Your task to perform on an android device: turn off airplane mode Image 0: 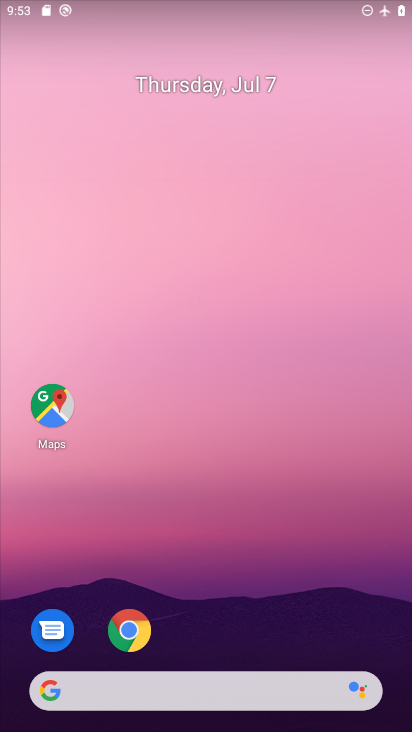
Step 0: drag from (187, 636) to (230, 174)
Your task to perform on an android device: turn off airplane mode Image 1: 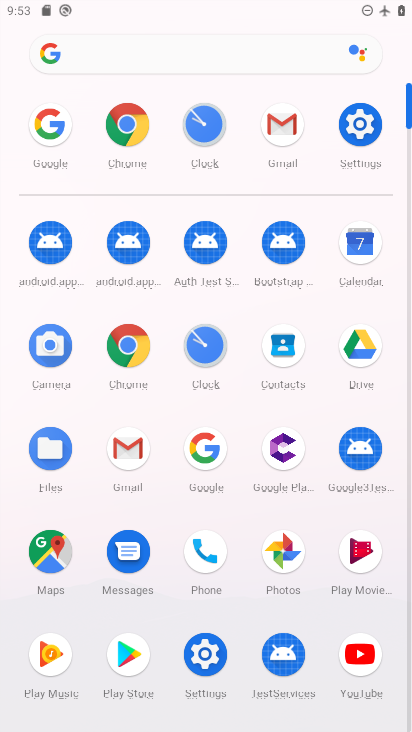
Step 1: click (341, 130)
Your task to perform on an android device: turn off airplane mode Image 2: 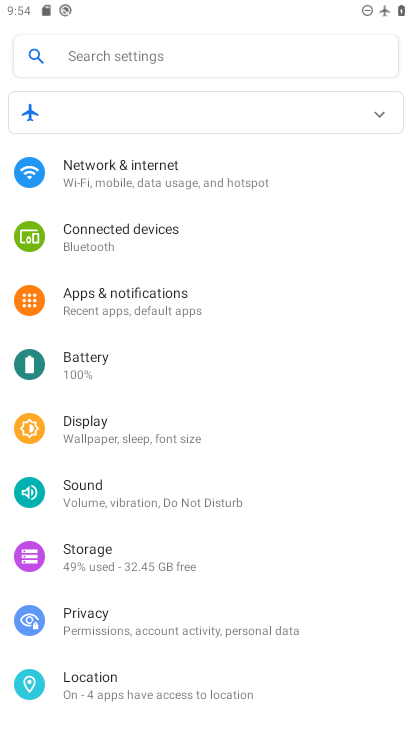
Step 2: click (148, 157)
Your task to perform on an android device: turn off airplane mode Image 3: 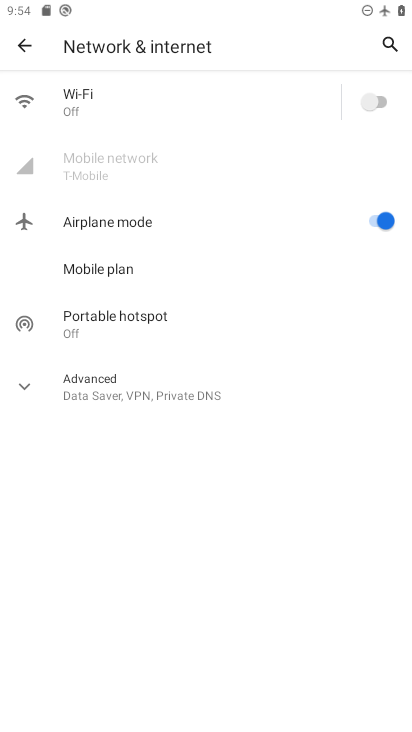
Step 3: click (364, 215)
Your task to perform on an android device: turn off airplane mode Image 4: 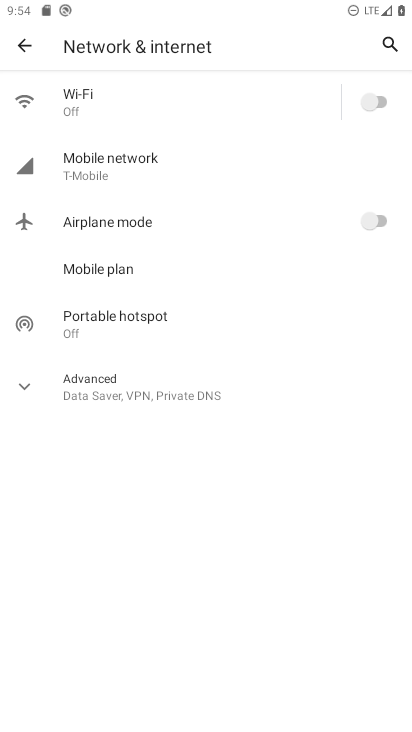
Step 4: task complete